Your task to perform on an android device: turn on airplane mode Image 0: 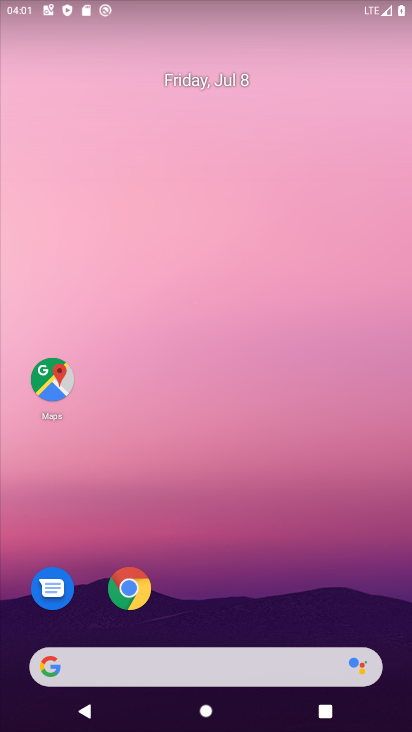
Step 0: drag from (196, 495) to (264, 42)
Your task to perform on an android device: turn on airplane mode Image 1: 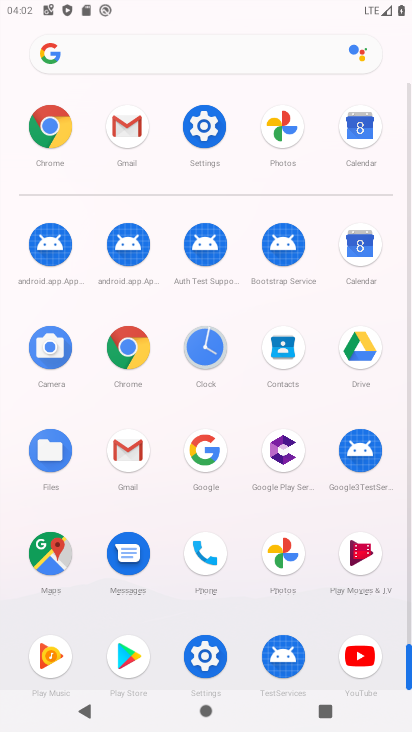
Step 1: click (216, 119)
Your task to perform on an android device: turn on airplane mode Image 2: 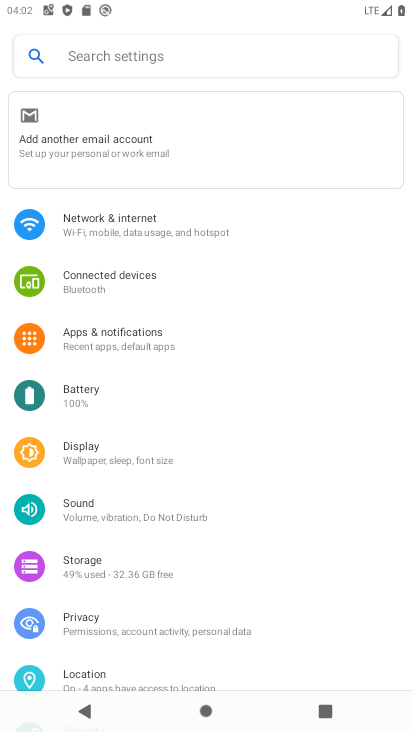
Step 2: click (129, 236)
Your task to perform on an android device: turn on airplane mode Image 3: 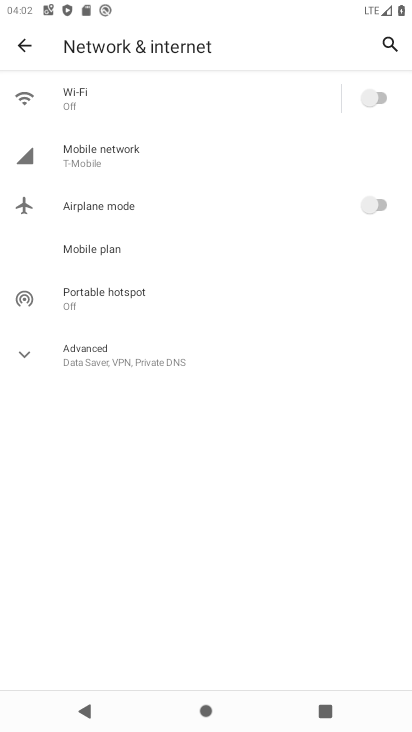
Step 3: click (392, 206)
Your task to perform on an android device: turn on airplane mode Image 4: 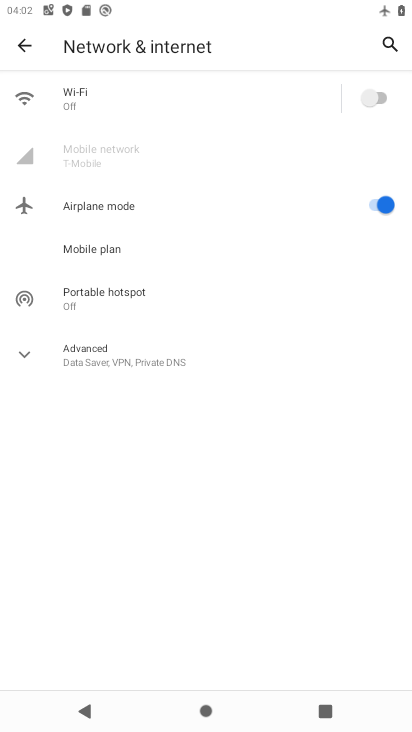
Step 4: task complete